Your task to perform on an android device: Open Google Chrome and click the shortcut for Amazon.com Image 0: 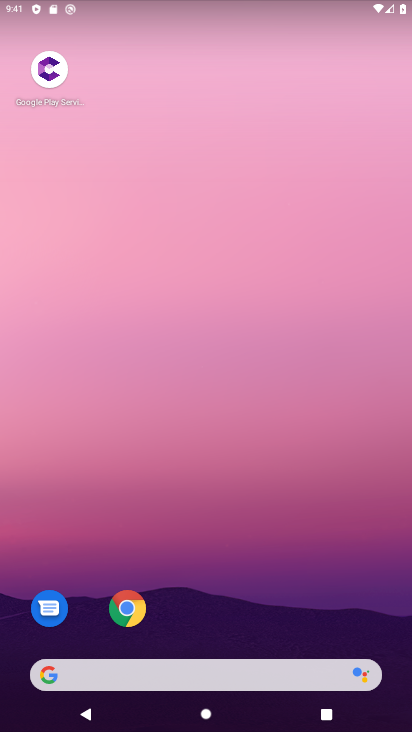
Step 0: click (142, 613)
Your task to perform on an android device: Open Google Chrome and click the shortcut for Amazon.com Image 1: 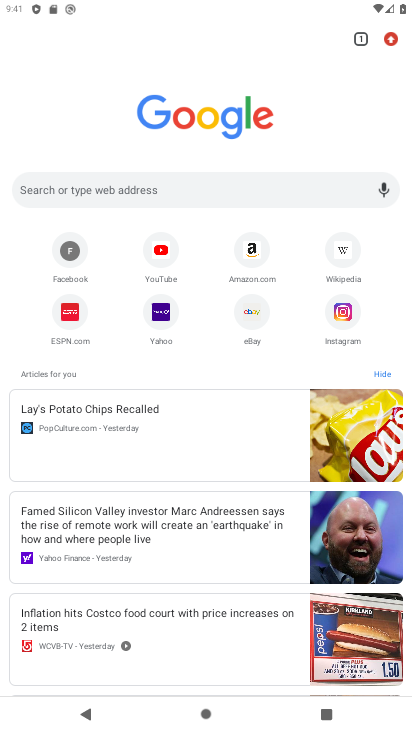
Step 1: click (250, 251)
Your task to perform on an android device: Open Google Chrome and click the shortcut for Amazon.com Image 2: 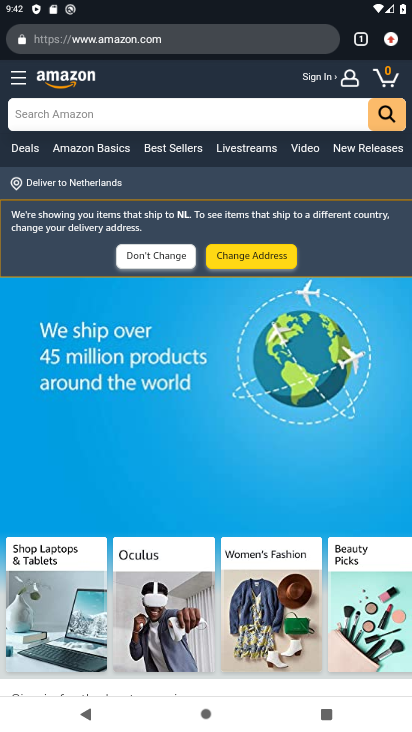
Step 2: task complete